Your task to perform on an android device: Go to Reddit.com Image 0: 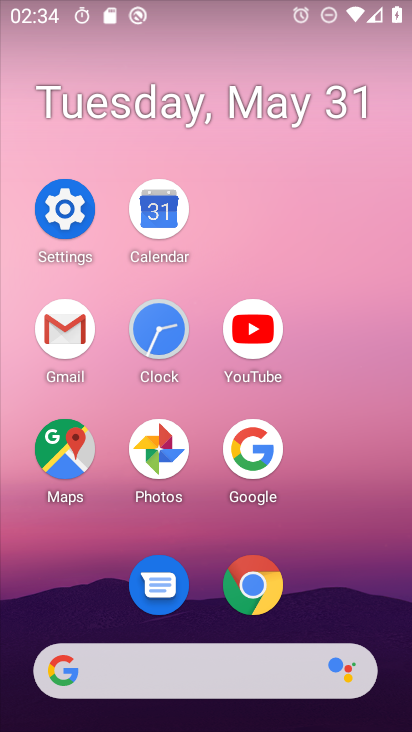
Step 0: click (257, 570)
Your task to perform on an android device: Go to Reddit.com Image 1: 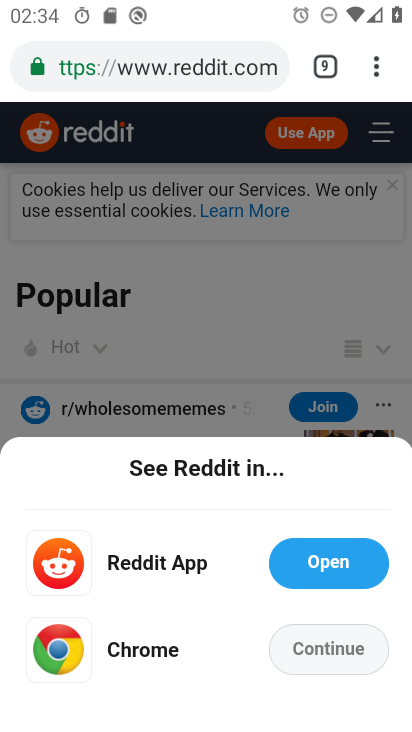
Step 1: task complete